Your task to perform on an android device: change alarm snooze length Image 0: 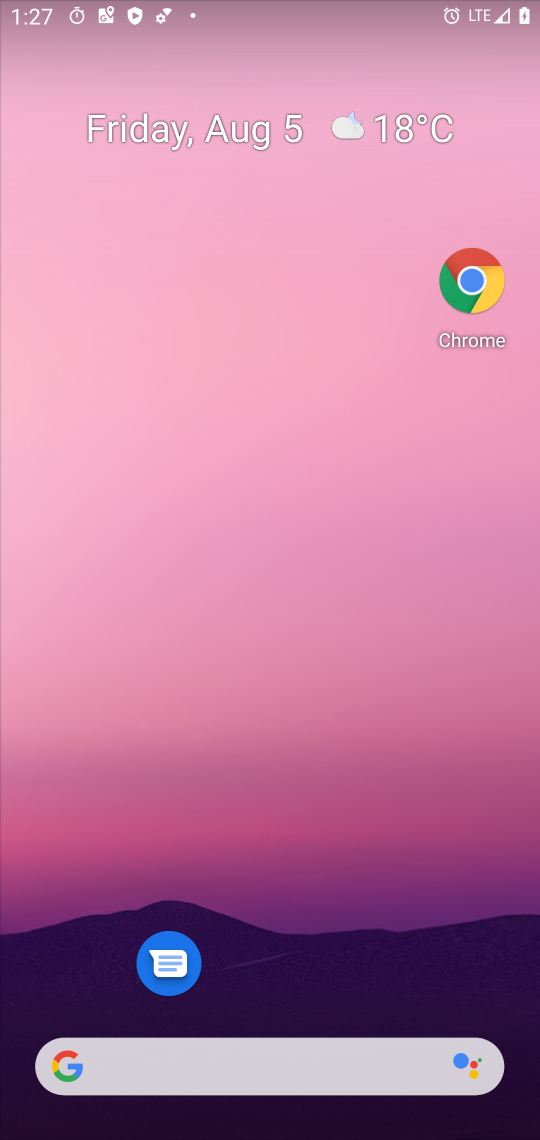
Step 0: drag from (273, 765) to (469, 54)
Your task to perform on an android device: change alarm snooze length Image 1: 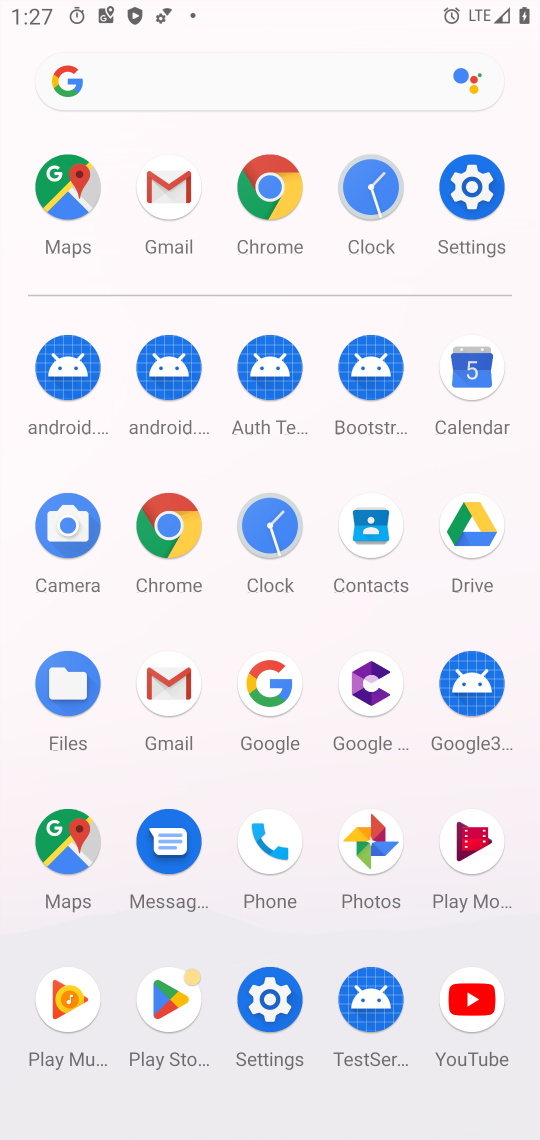
Step 1: click (360, 179)
Your task to perform on an android device: change alarm snooze length Image 2: 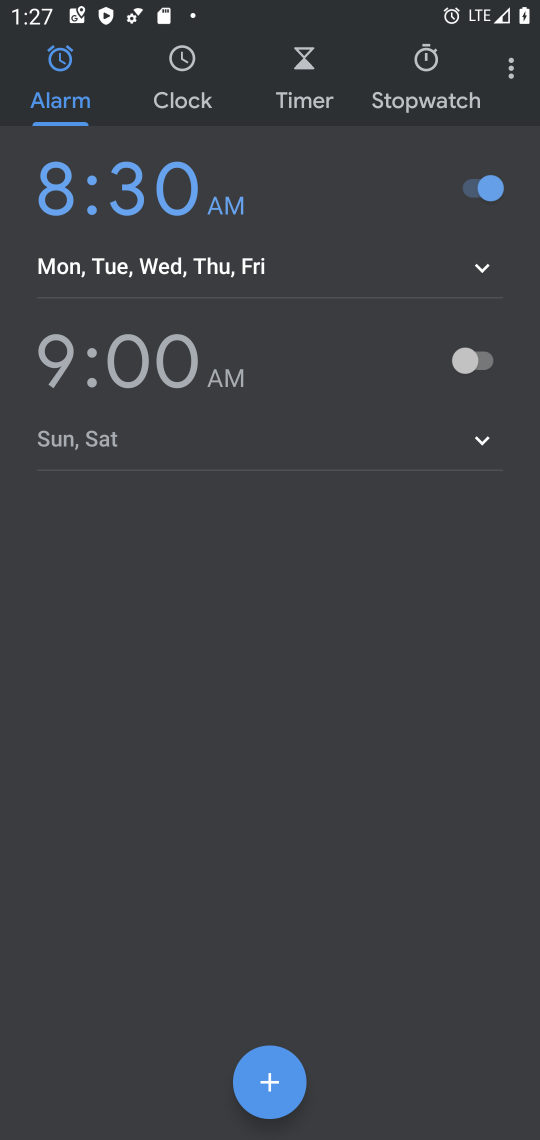
Step 2: click (527, 64)
Your task to perform on an android device: change alarm snooze length Image 3: 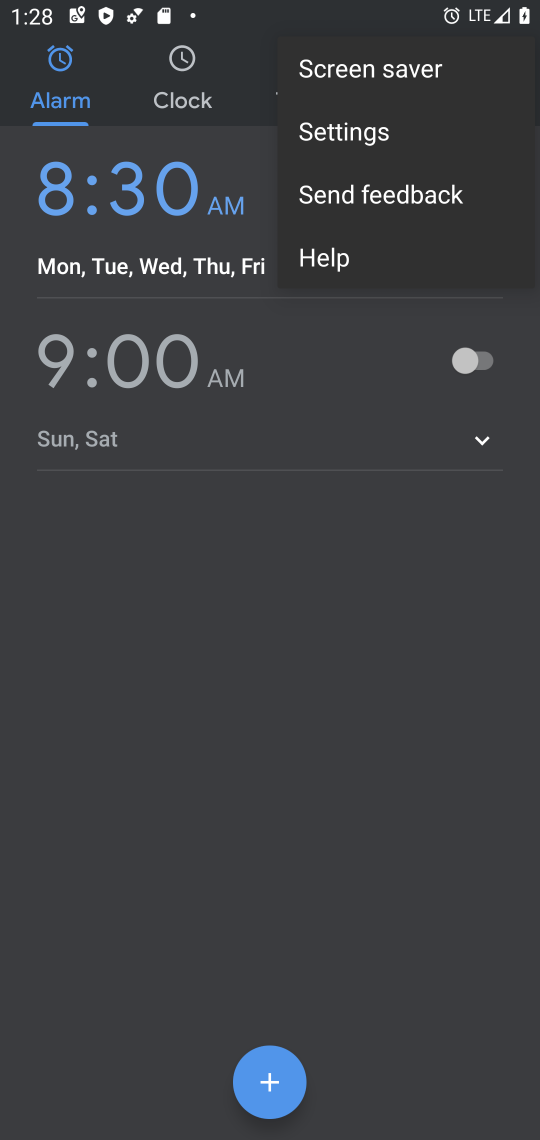
Step 3: click (368, 136)
Your task to perform on an android device: change alarm snooze length Image 4: 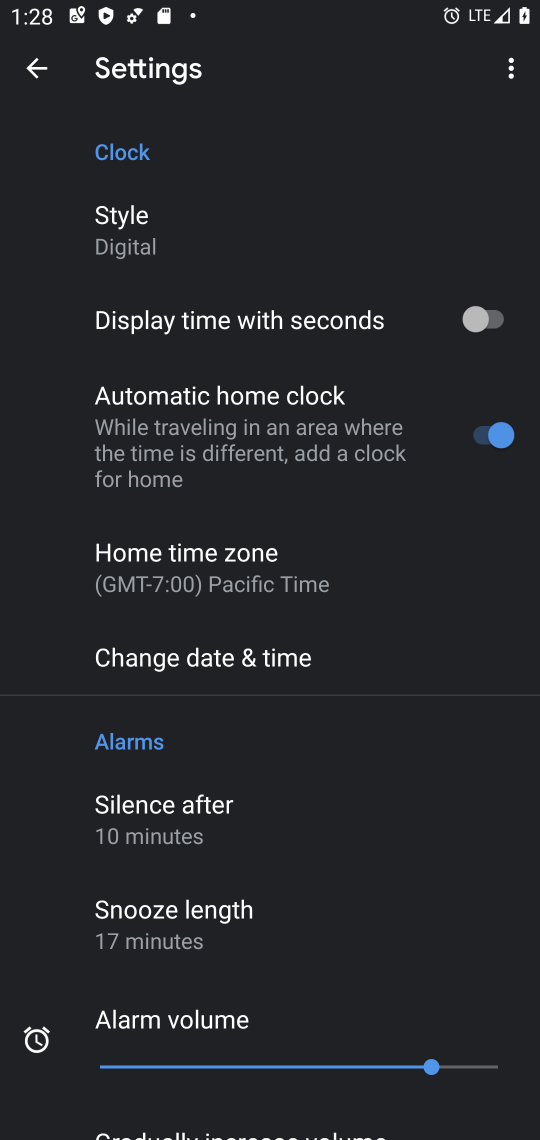
Step 4: click (240, 909)
Your task to perform on an android device: change alarm snooze length Image 5: 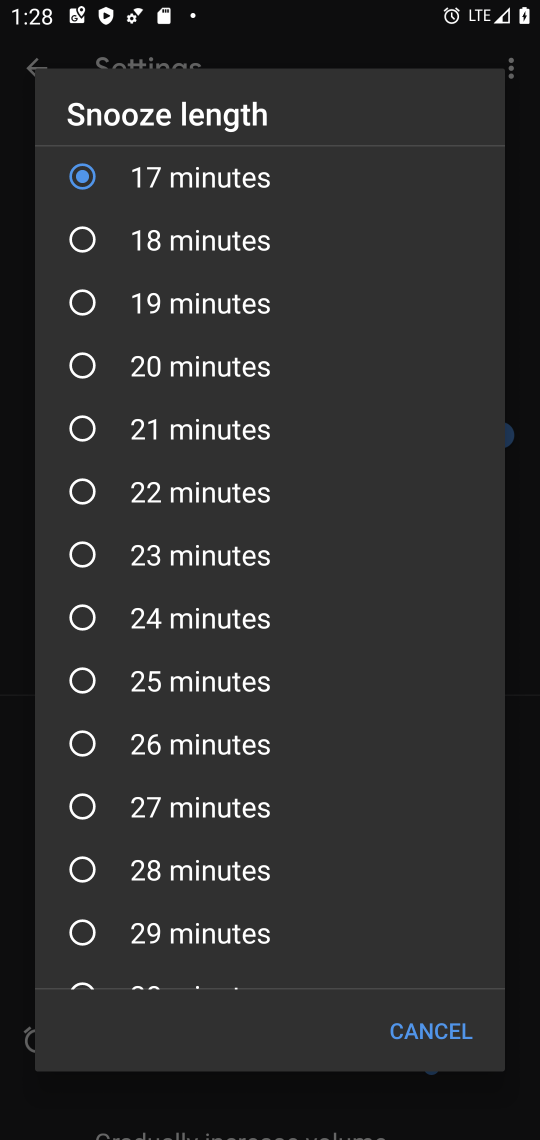
Step 5: click (152, 491)
Your task to perform on an android device: change alarm snooze length Image 6: 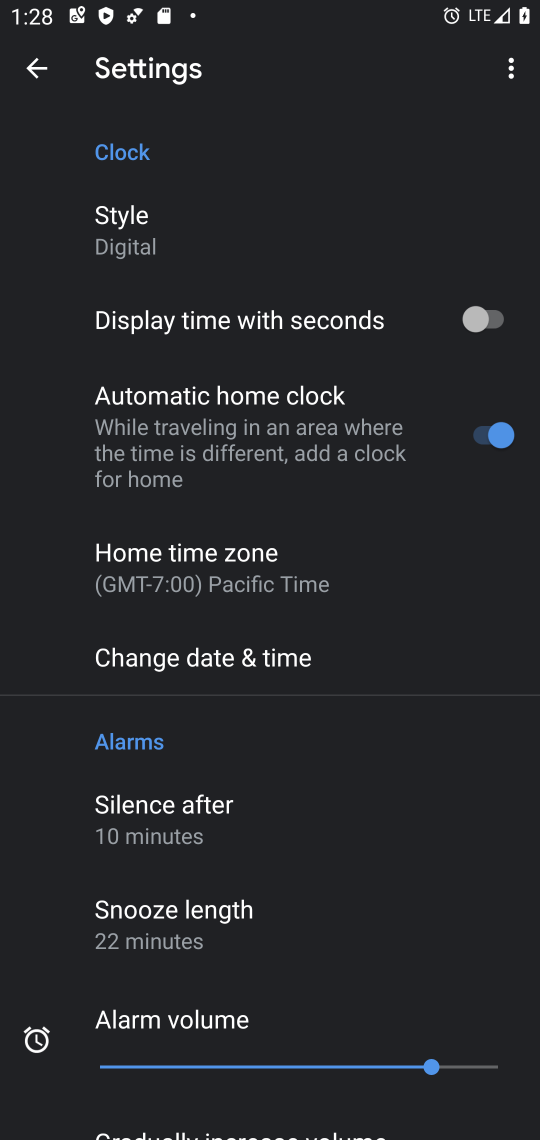
Step 6: task complete